Your task to perform on an android device: change notification settings in the gmail app Image 0: 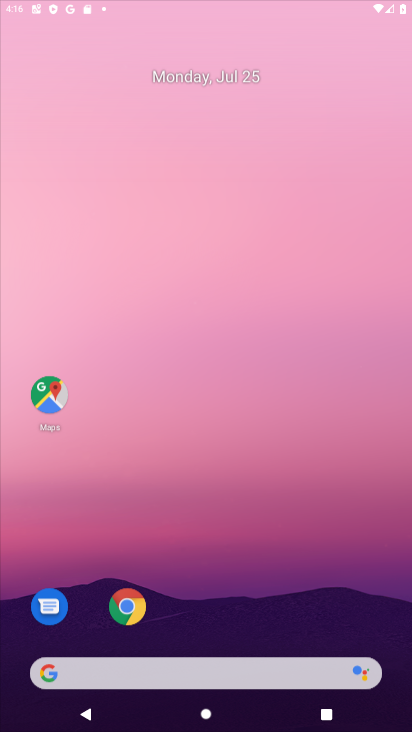
Step 0: press home button
Your task to perform on an android device: change notification settings in the gmail app Image 1: 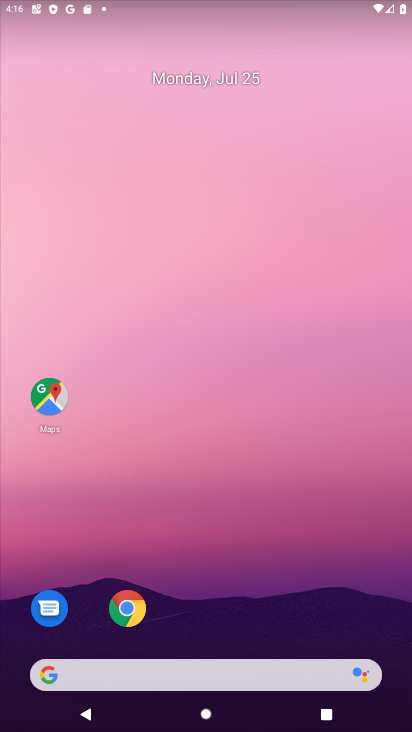
Step 1: press home button
Your task to perform on an android device: change notification settings in the gmail app Image 2: 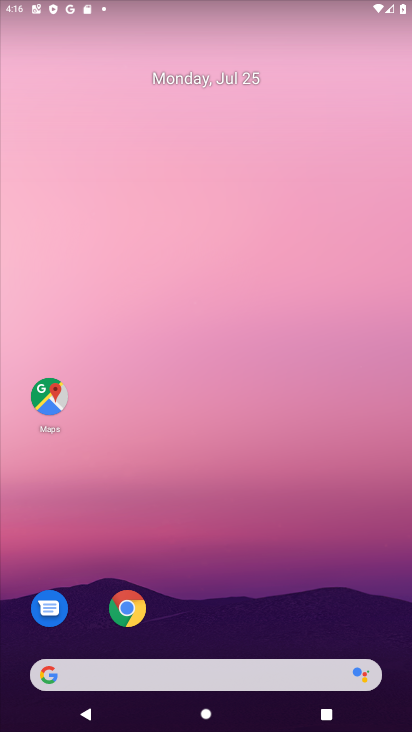
Step 2: drag from (191, 641) to (220, 5)
Your task to perform on an android device: change notification settings in the gmail app Image 3: 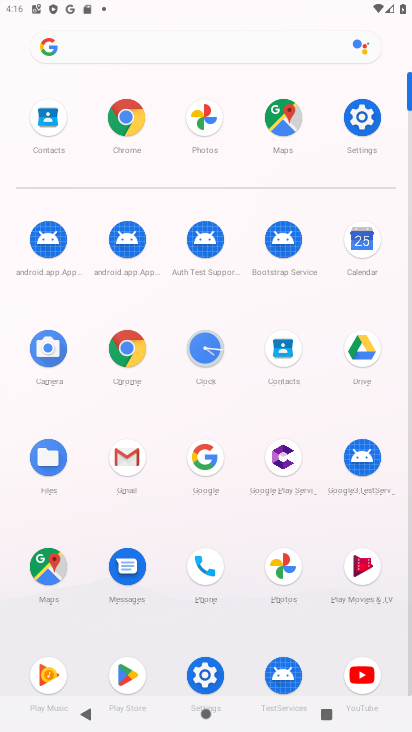
Step 3: click (127, 448)
Your task to perform on an android device: change notification settings in the gmail app Image 4: 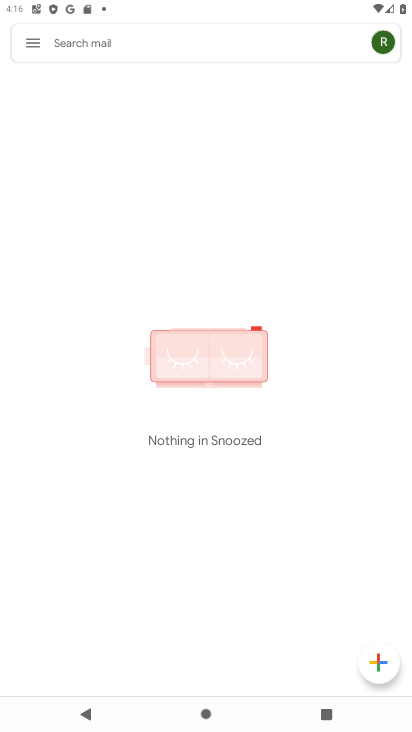
Step 4: click (20, 37)
Your task to perform on an android device: change notification settings in the gmail app Image 5: 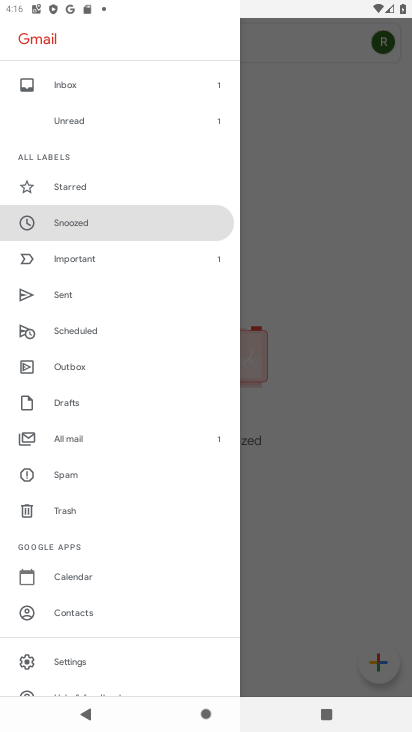
Step 5: drag from (107, 624) to (94, 65)
Your task to perform on an android device: change notification settings in the gmail app Image 6: 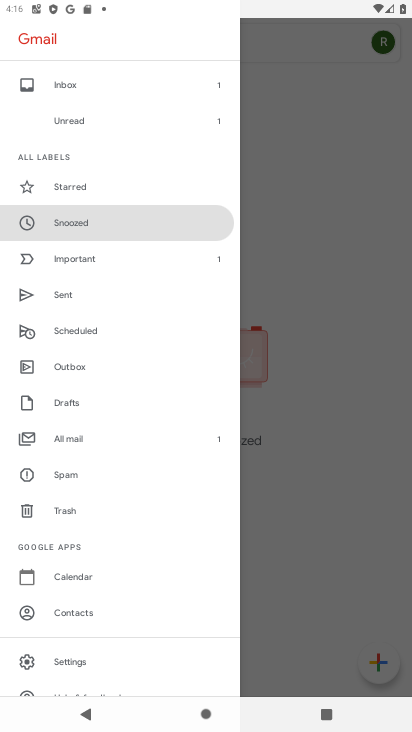
Step 6: drag from (76, 650) to (117, 274)
Your task to perform on an android device: change notification settings in the gmail app Image 7: 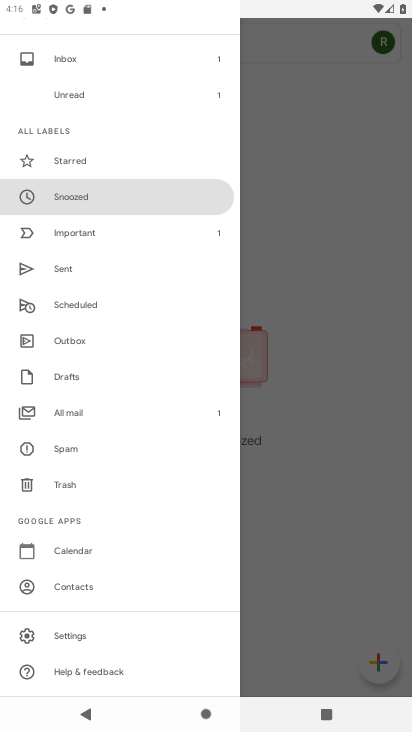
Step 7: click (92, 631)
Your task to perform on an android device: change notification settings in the gmail app Image 8: 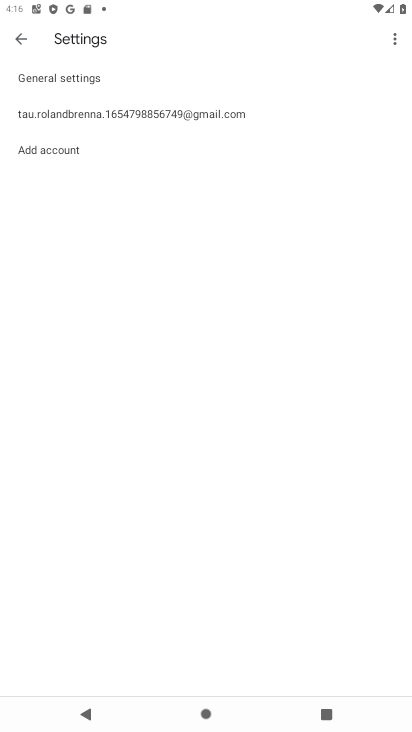
Step 8: click (116, 68)
Your task to perform on an android device: change notification settings in the gmail app Image 9: 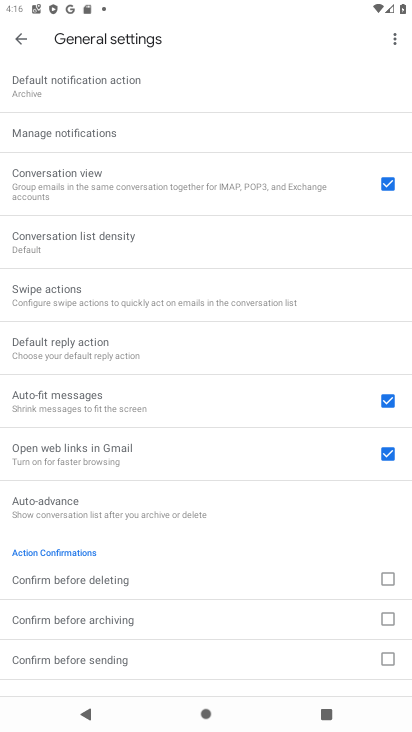
Step 9: click (132, 122)
Your task to perform on an android device: change notification settings in the gmail app Image 10: 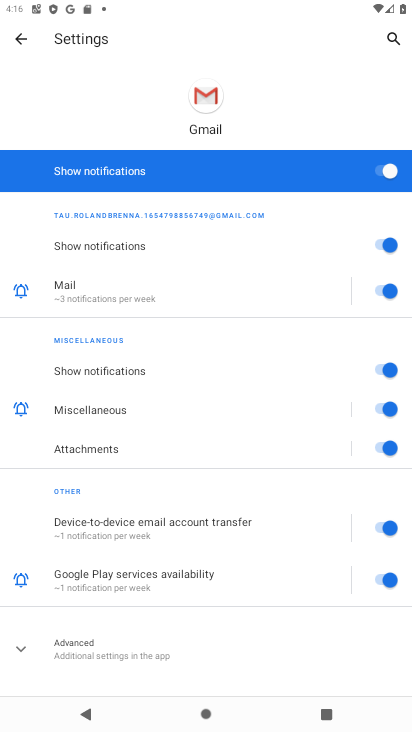
Step 10: click (383, 167)
Your task to perform on an android device: change notification settings in the gmail app Image 11: 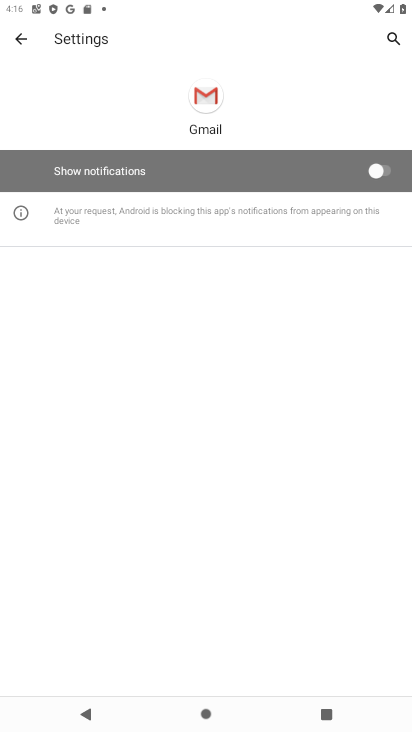
Step 11: task complete